Your task to perform on an android device: What's on my calendar today? Image 0: 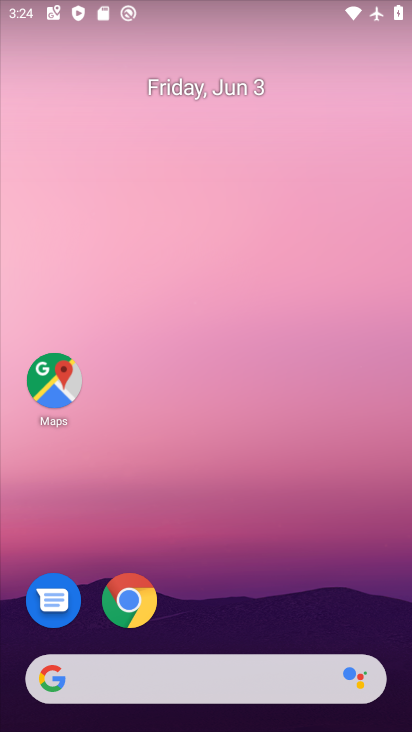
Step 0: drag from (244, 624) to (290, 184)
Your task to perform on an android device: What's on my calendar today? Image 1: 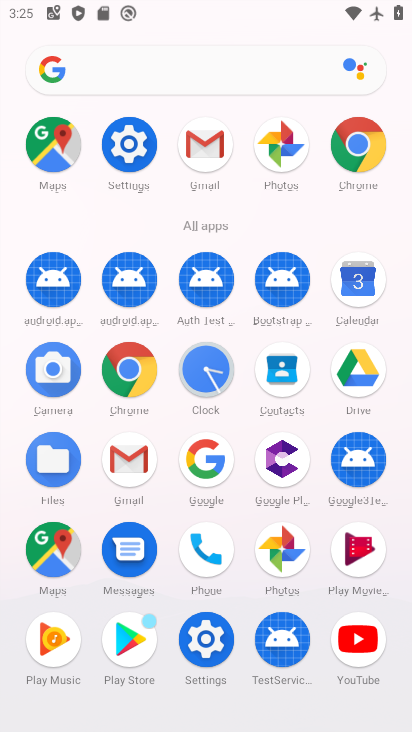
Step 1: click (359, 301)
Your task to perform on an android device: What's on my calendar today? Image 2: 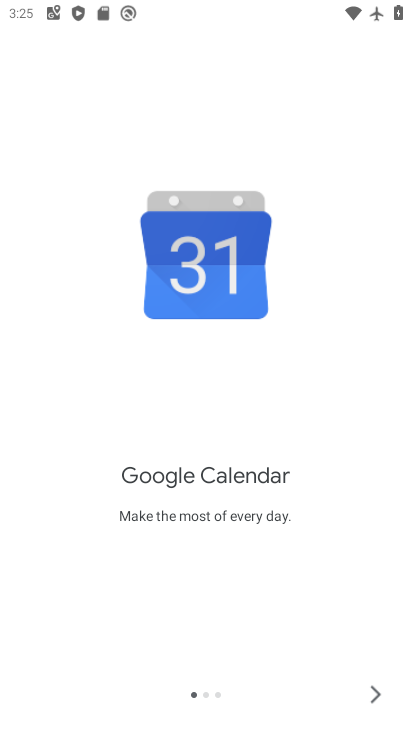
Step 2: click (374, 689)
Your task to perform on an android device: What's on my calendar today? Image 3: 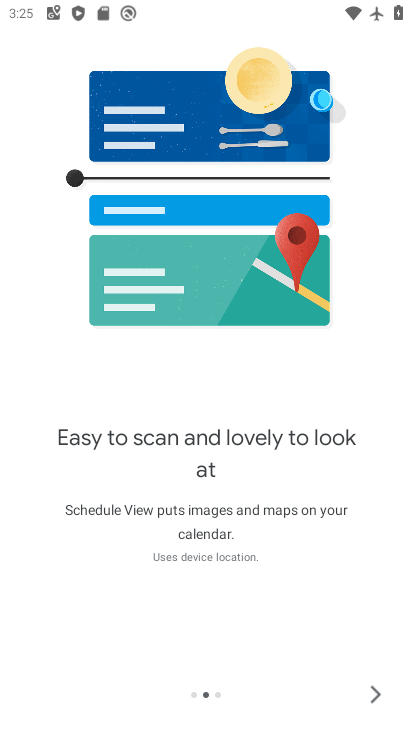
Step 3: click (375, 688)
Your task to perform on an android device: What's on my calendar today? Image 4: 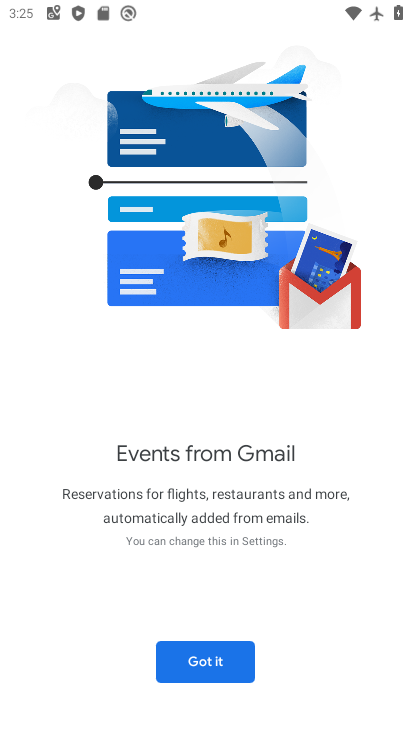
Step 4: click (228, 642)
Your task to perform on an android device: What's on my calendar today? Image 5: 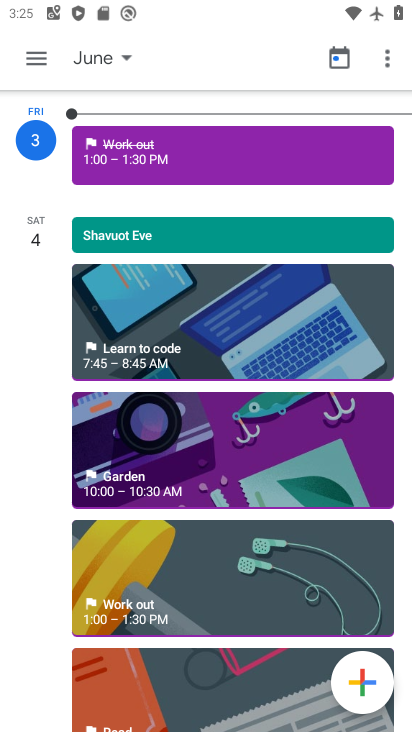
Step 5: click (41, 51)
Your task to perform on an android device: What's on my calendar today? Image 6: 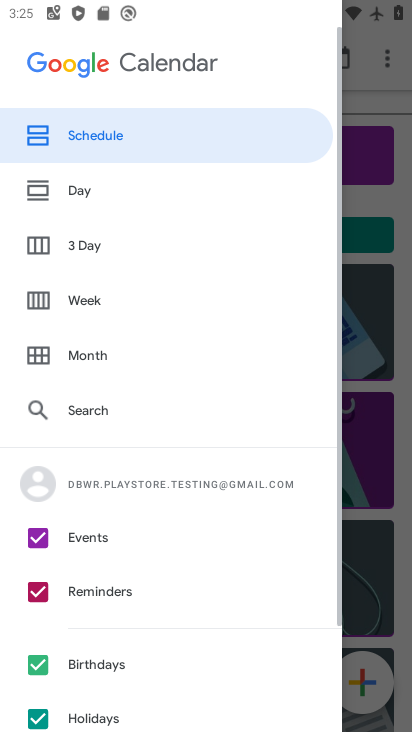
Step 6: click (94, 206)
Your task to perform on an android device: What's on my calendar today? Image 7: 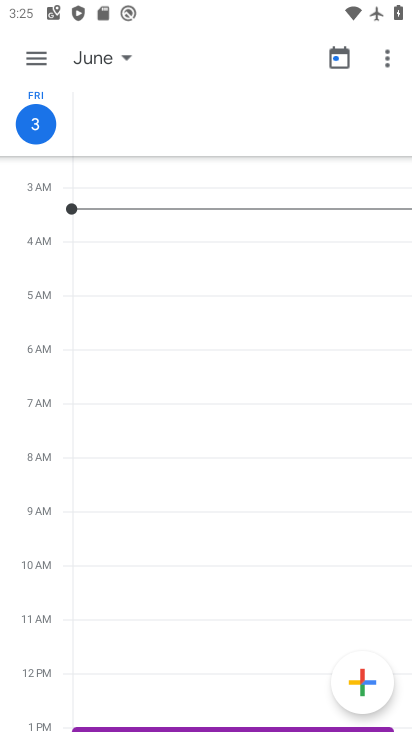
Step 7: task complete